Your task to perform on an android device: move a message to another label in the gmail app Image 0: 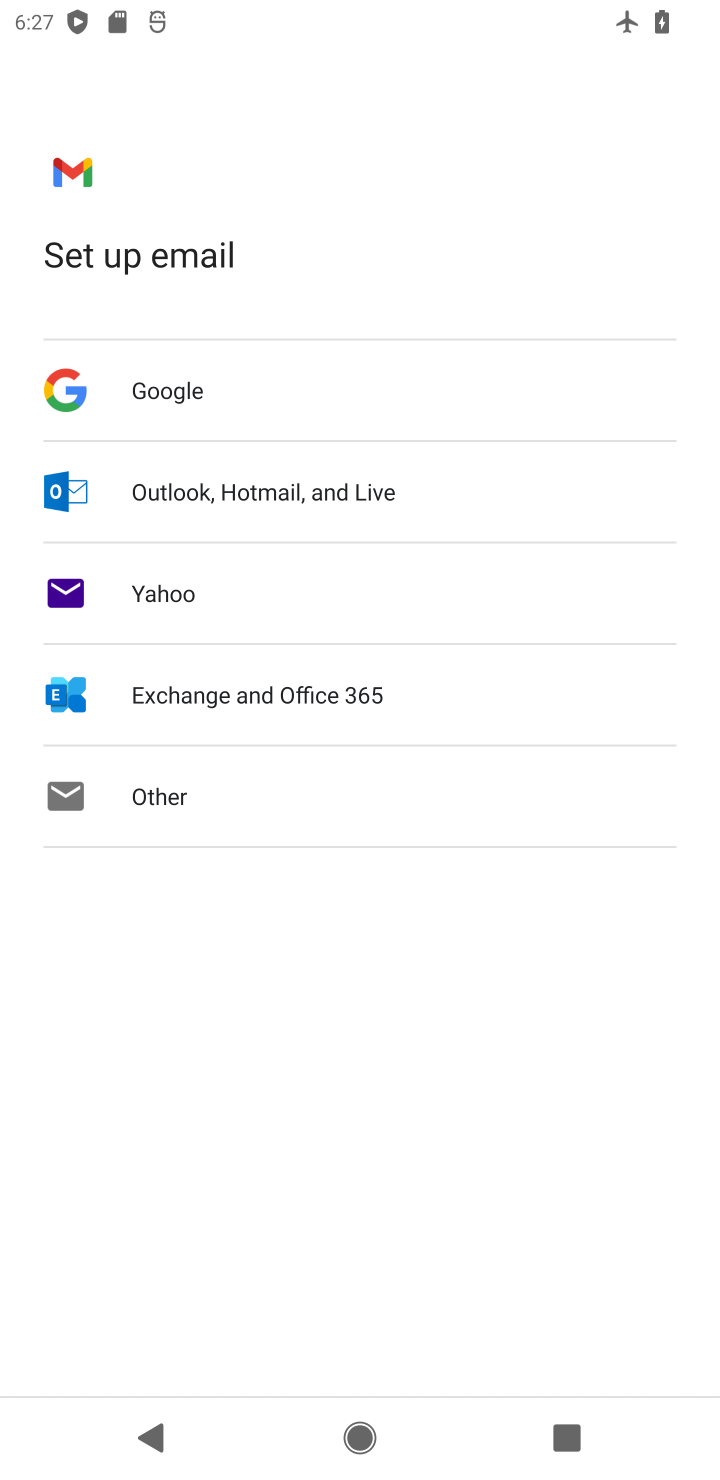
Step 0: press back button
Your task to perform on an android device: move a message to another label in the gmail app Image 1: 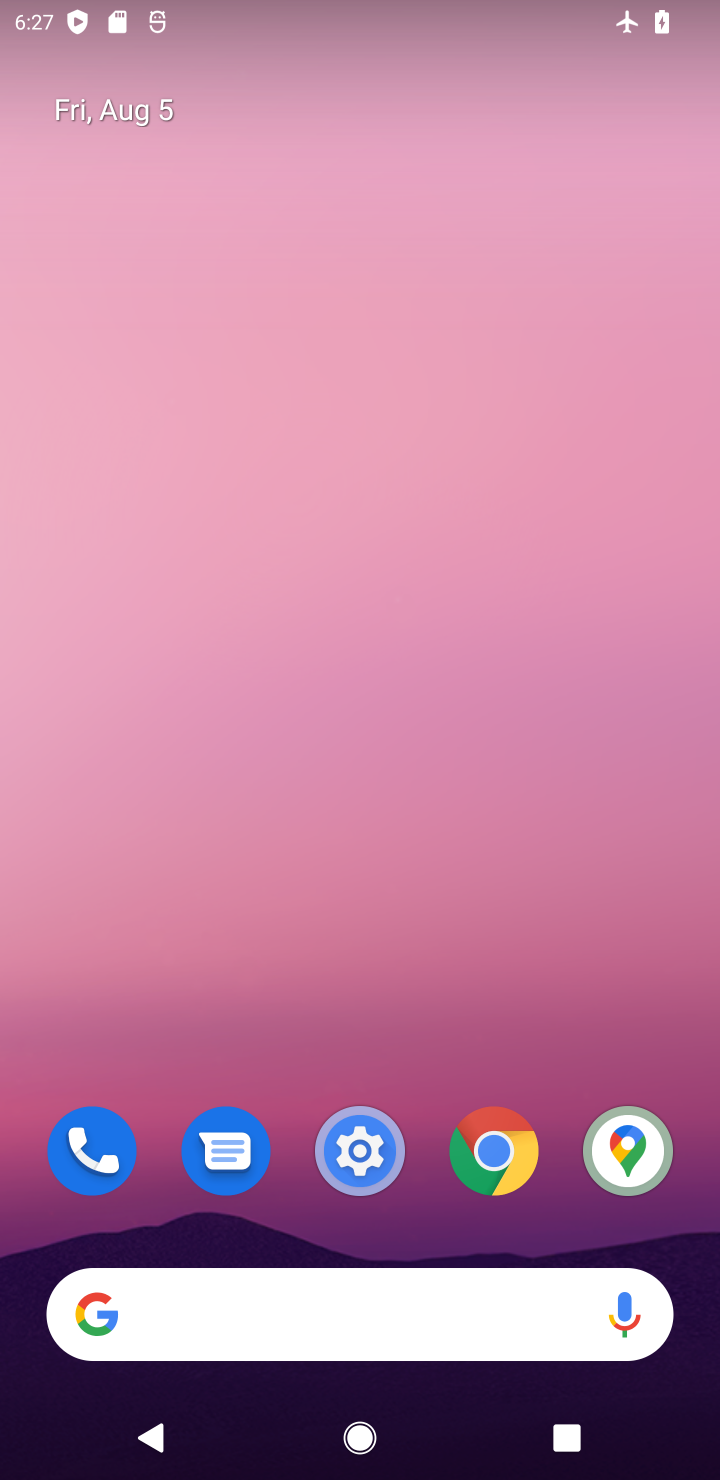
Step 1: press home button
Your task to perform on an android device: move a message to another label in the gmail app Image 2: 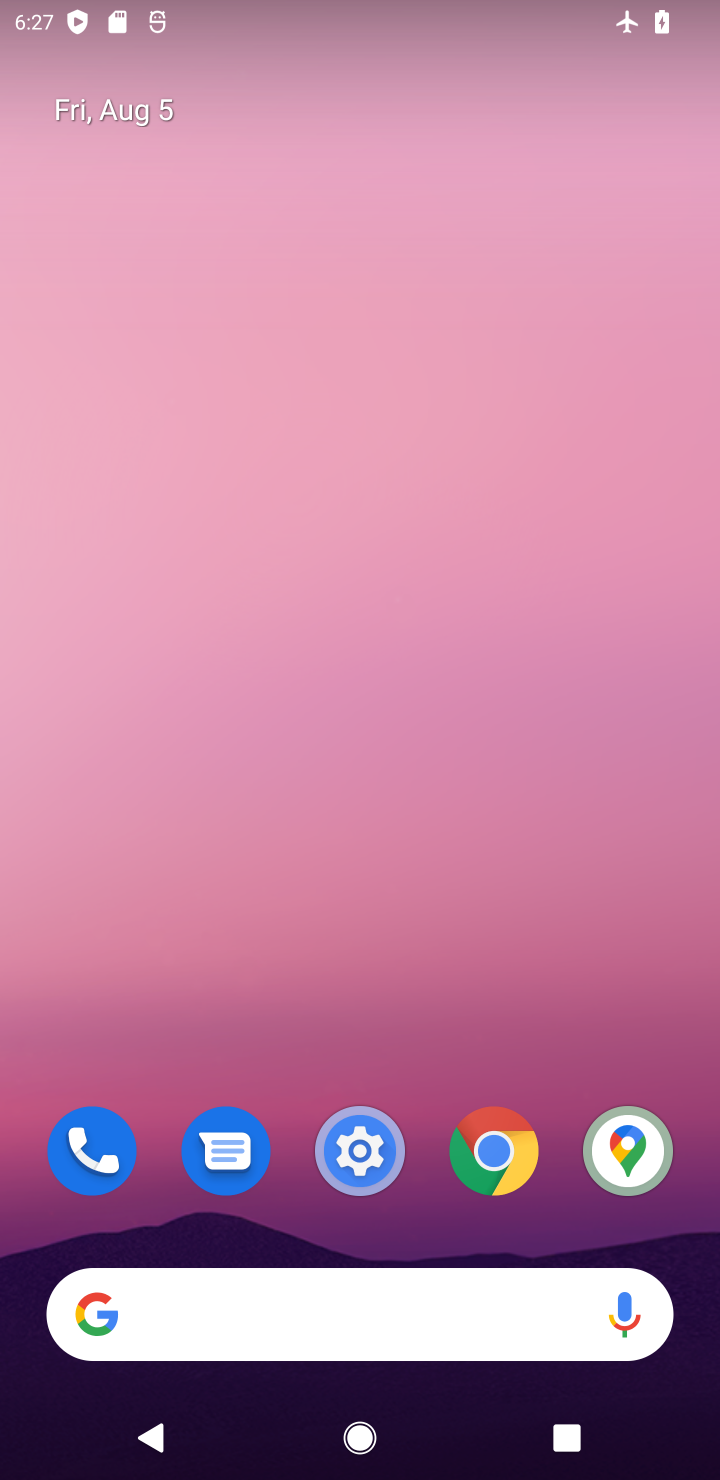
Step 2: drag from (275, 1259) to (307, 6)
Your task to perform on an android device: move a message to another label in the gmail app Image 3: 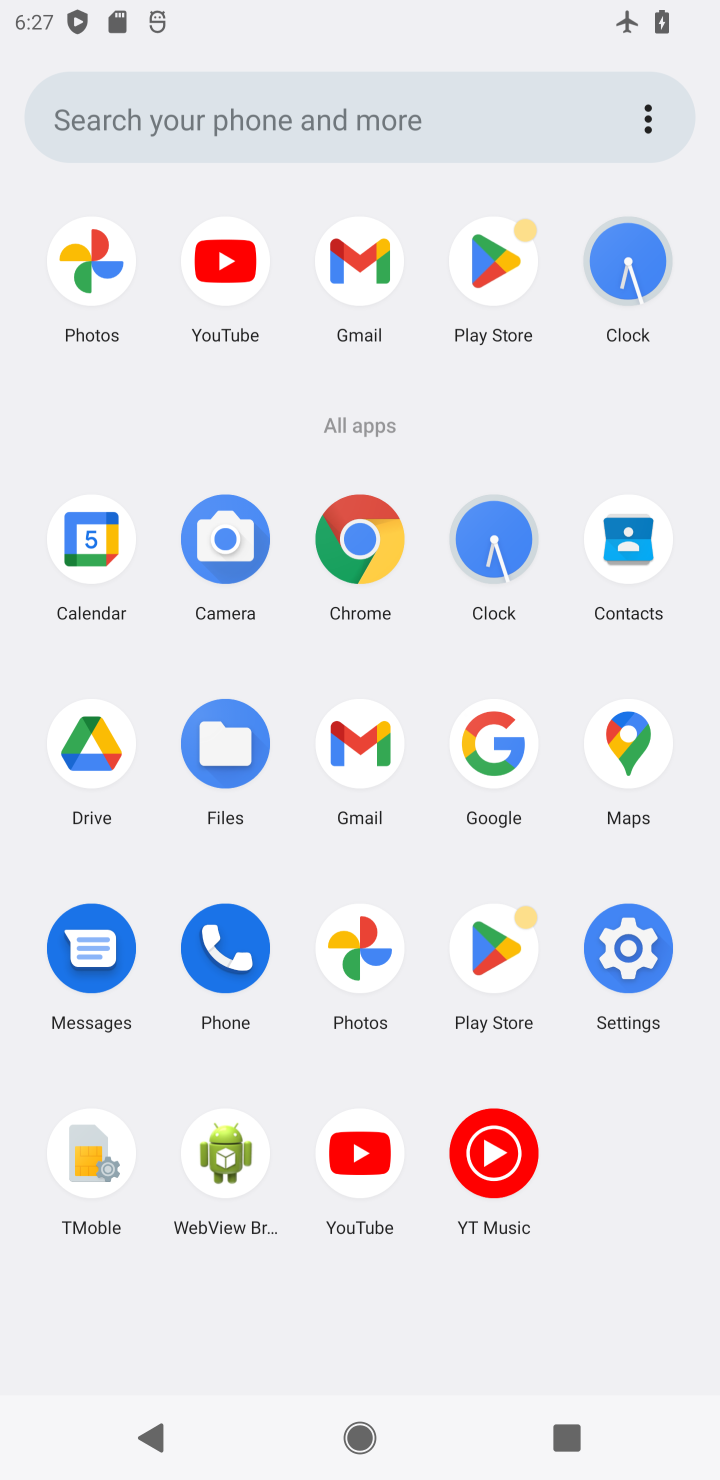
Step 3: click (384, 740)
Your task to perform on an android device: move a message to another label in the gmail app Image 4: 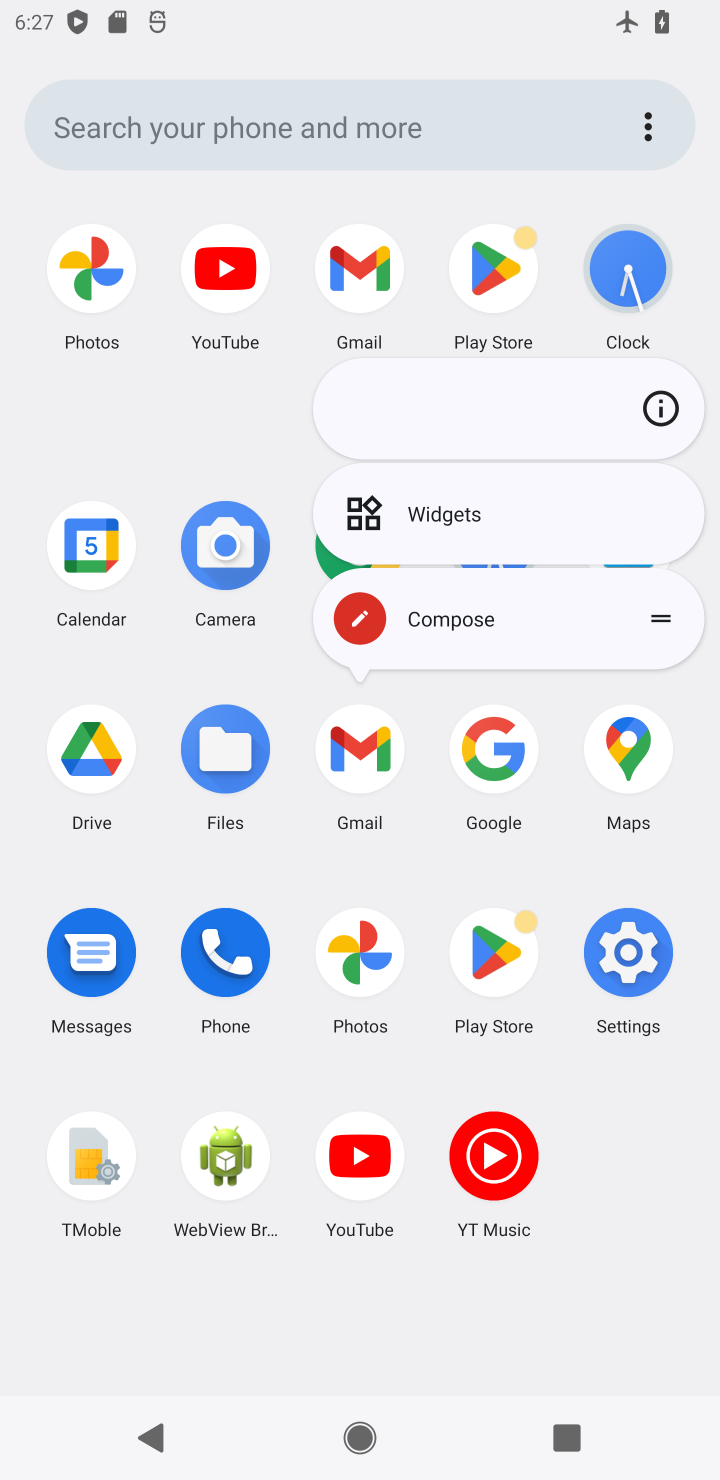
Step 4: click (364, 776)
Your task to perform on an android device: move a message to another label in the gmail app Image 5: 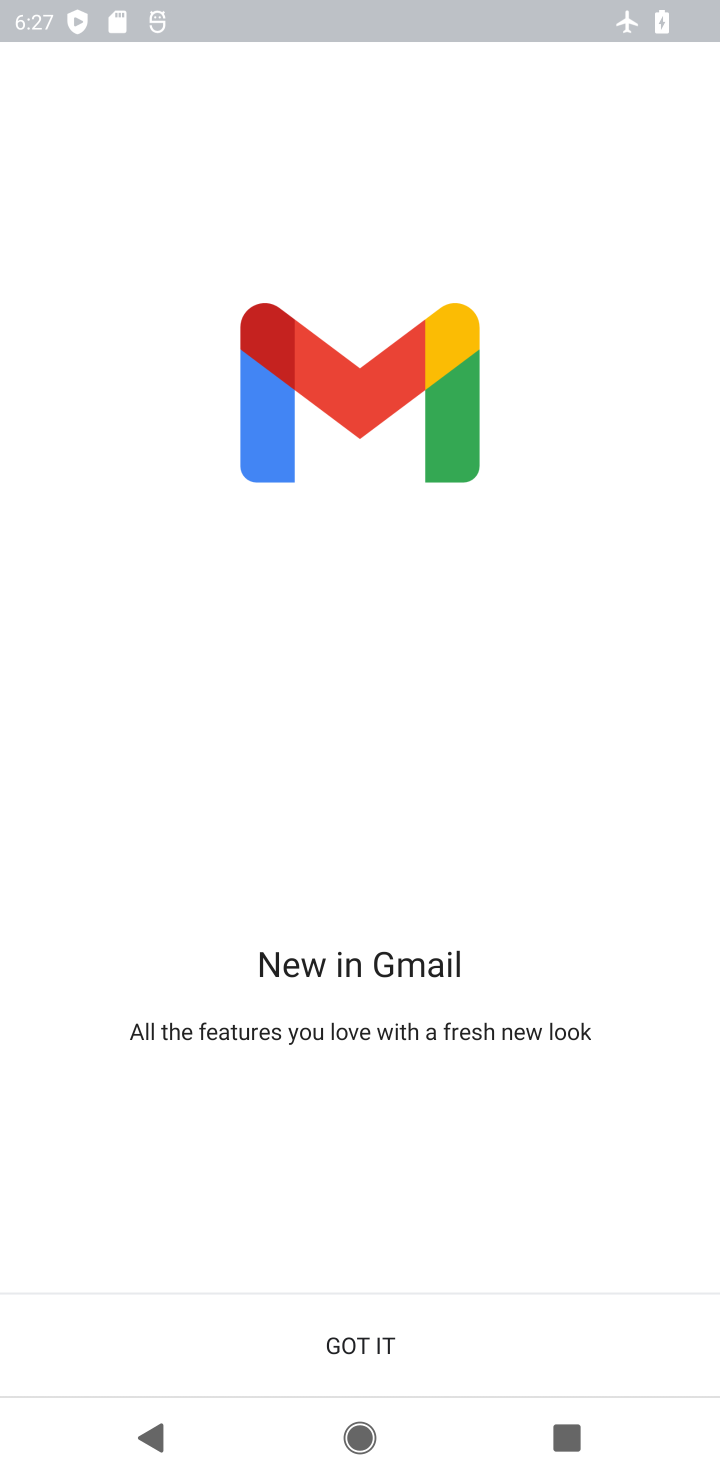
Step 5: click (377, 1322)
Your task to perform on an android device: move a message to another label in the gmail app Image 6: 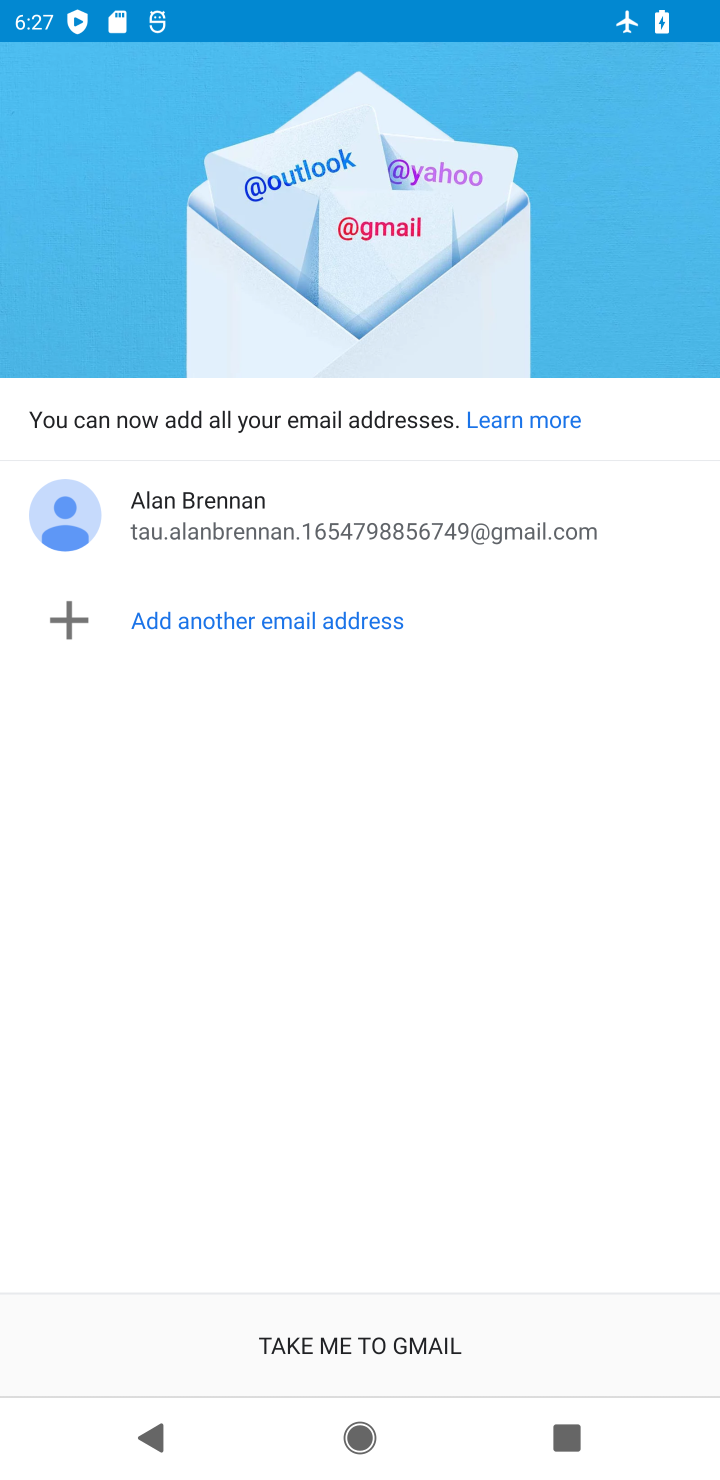
Step 6: click (377, 1324)
Your task to perform on an android device: move a message to another label in the gmail app Image 7: 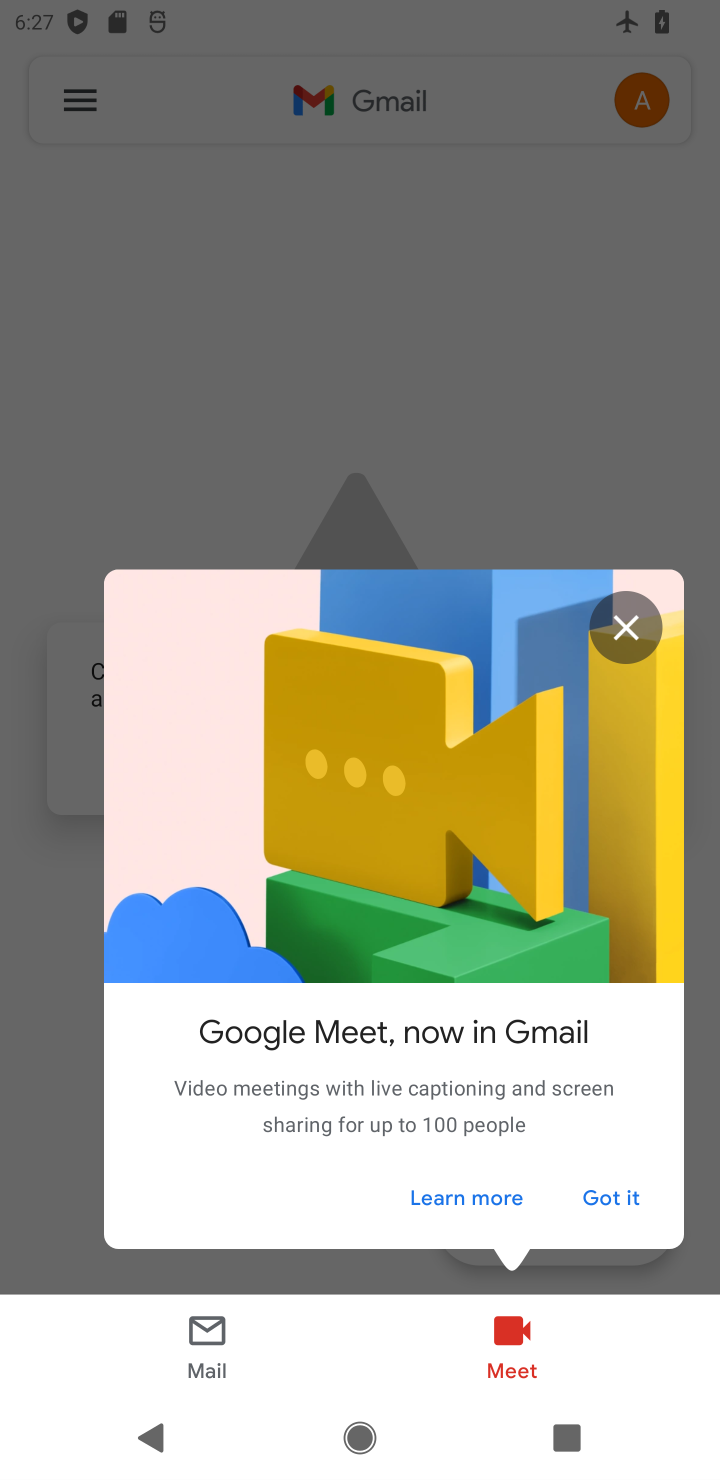
Step 7: click (646, 631)
Your task to perform on an android device: move a message to another label in the gmail app Image 8: 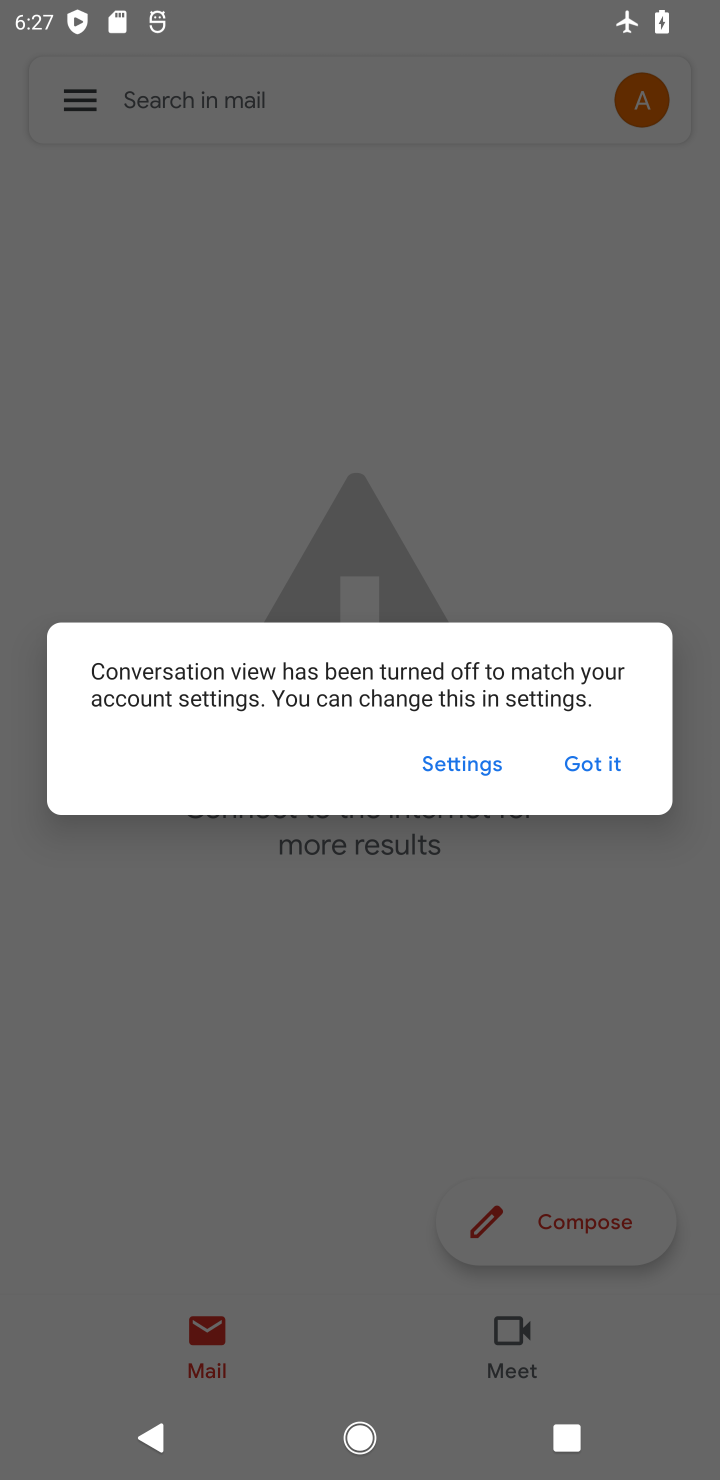
Step 8: click (604, 770)
Your task to perform on an android device: move a message to another label in the gmail app Image 9: 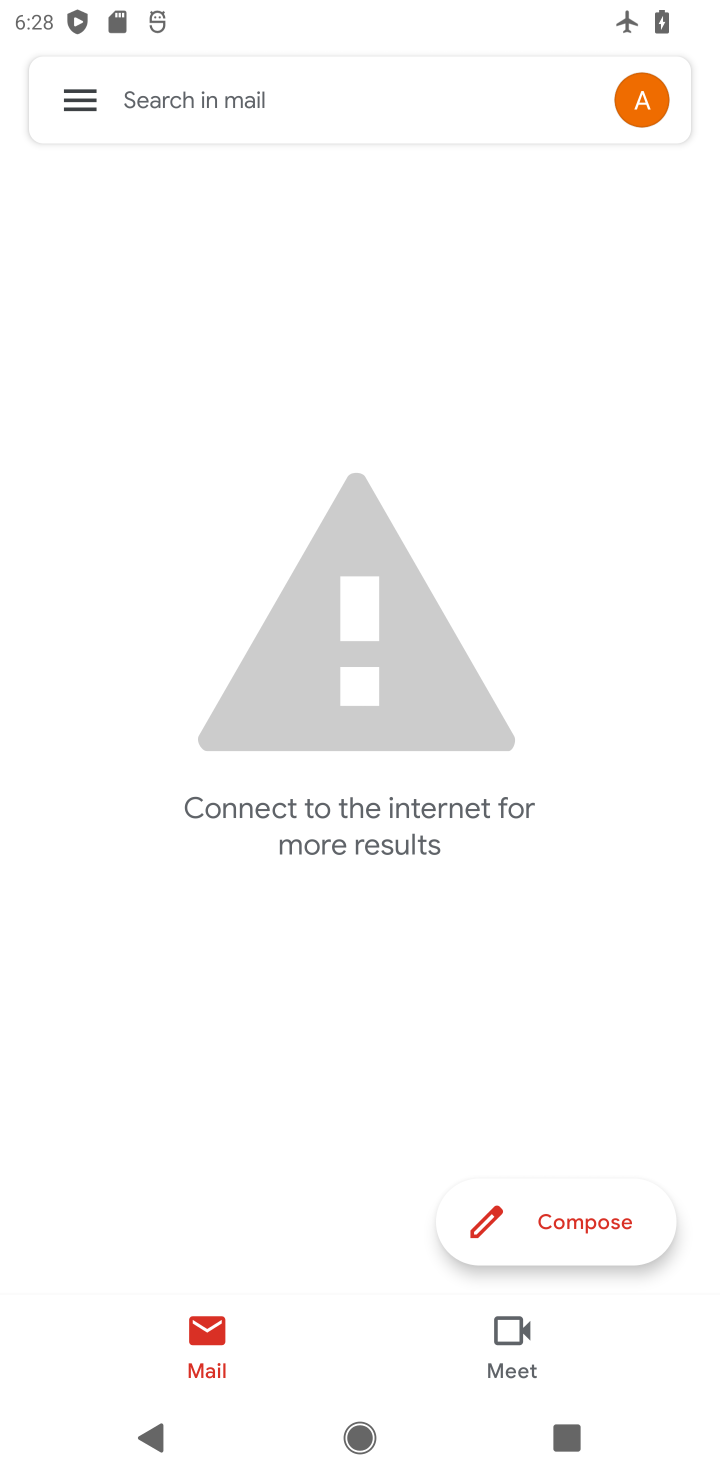
Step 9: task complete